Your task to perform on an android device: search for starred emails in the gmail app Image 0: 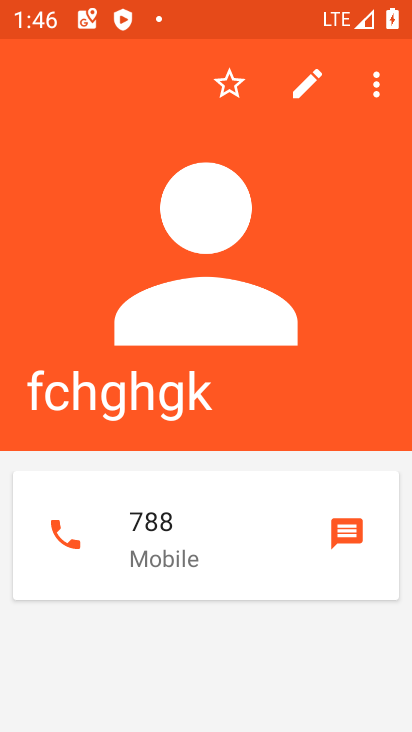
Step 0: press home button
Your task to perform on an android device: search for starred emails in the gmail app Image 1: 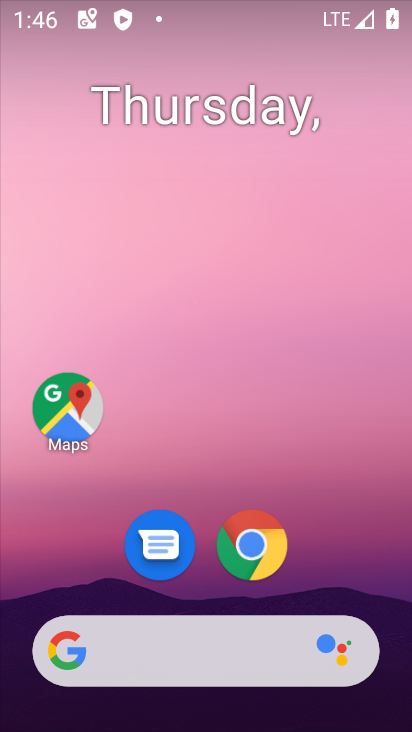
Step 1: drag from (163, 711) to (218, 5)
Your task to perform on an android device: search for starred emails in the gmail app Image 2: 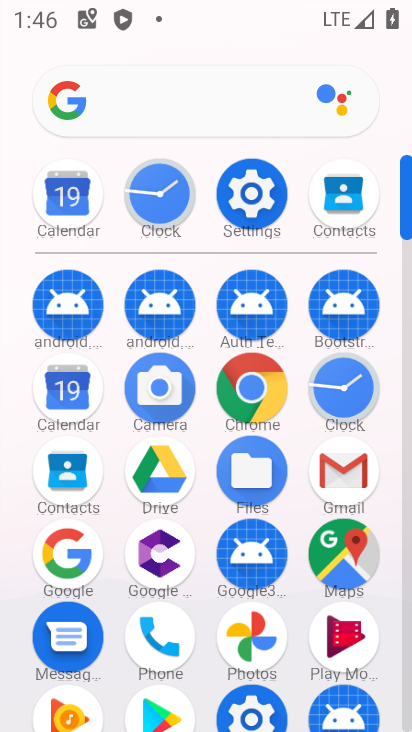
Step 2: click (352, 467)
Your task to perform on an android device: search for starred emails in the gmail app Image 3: 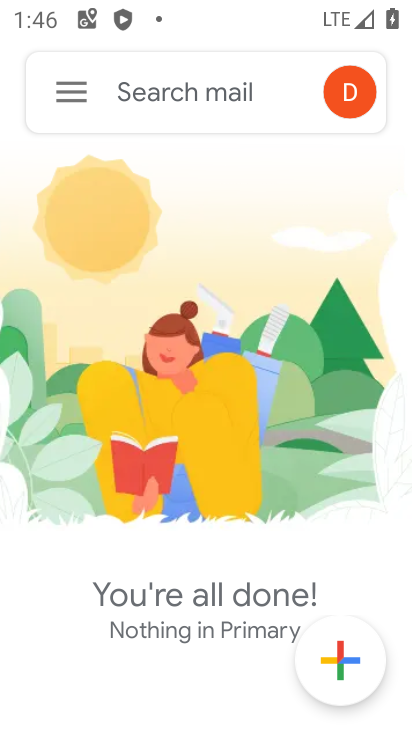
Step 3: click (59, 98)
Your task to perform on an android device: search for starred emails in the gmail app Image 4: 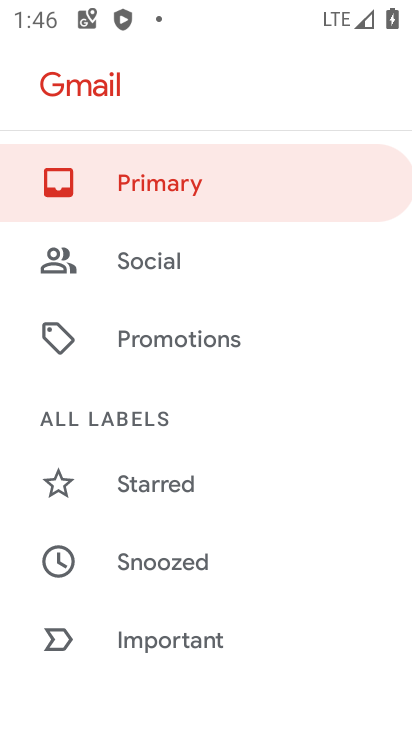
Step 4: click (232, 456)
Your task to perform on an android device: search for starred emails in the gmail app Image 5: 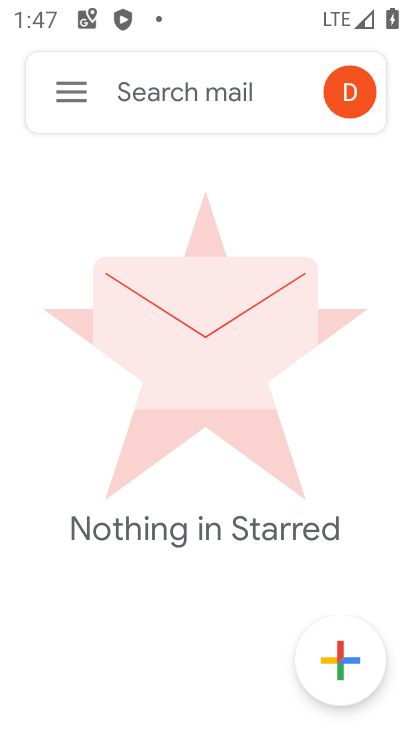
Step 5: task complete